Your task to perform on an android device: What is the news today? Image 0: 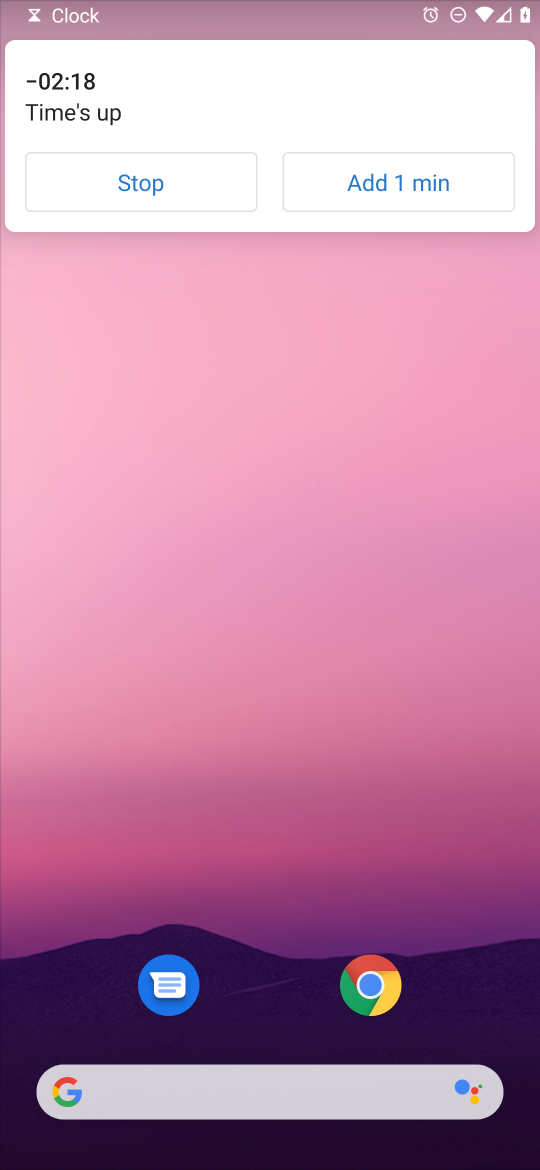
Step 0: click (134, 159)
Your task to perform on an android device: What is the news today? Image 1: 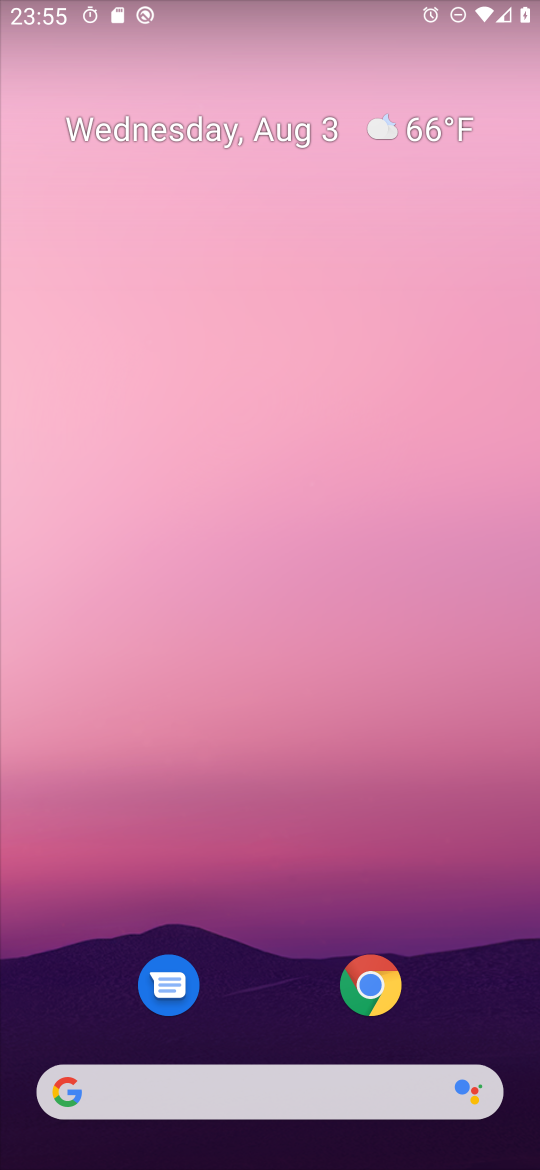
Step 1: drag from (298, 912) to (298, 266)
Your task to perform on an android device: What is the news today? Image 2: 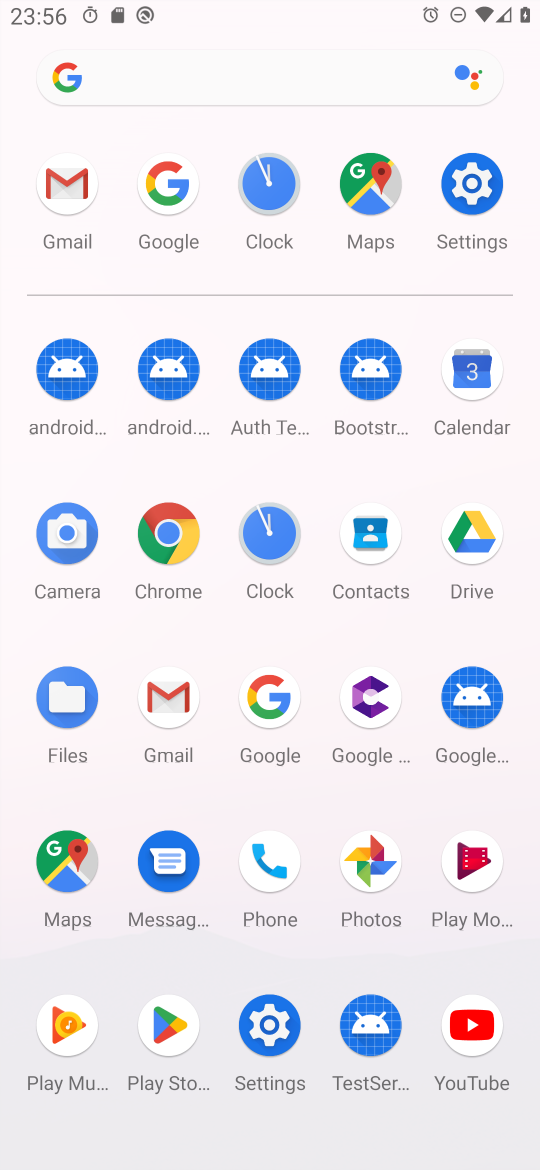
Step 2: click (157, 215)
Your task to perform on an android device: What is the news today? Image 3: 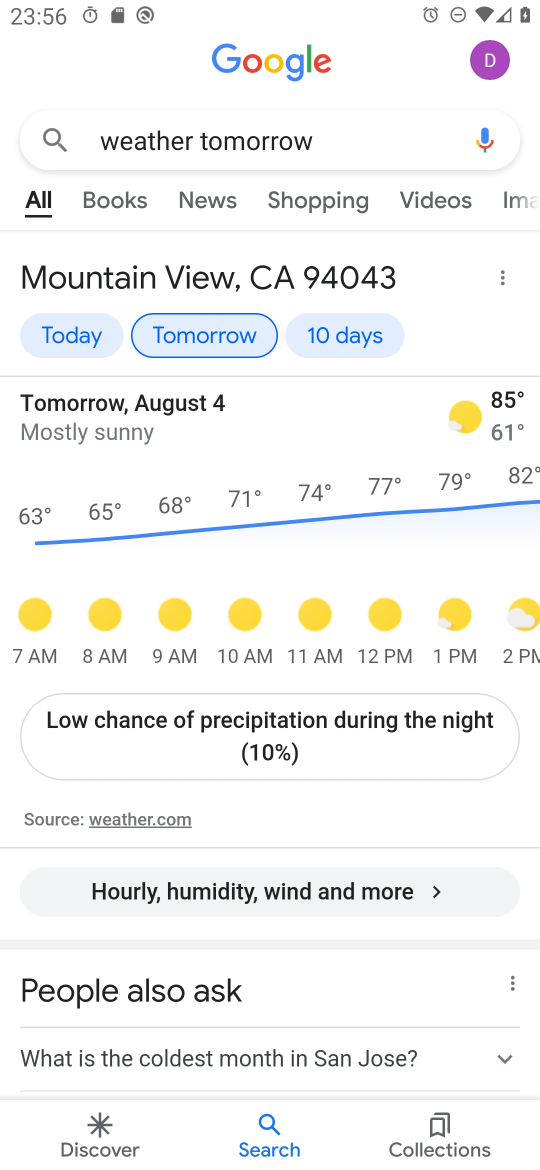
Step 3: click (346, 140)
Your task to perform on an android device: What is the news today? Image 4: 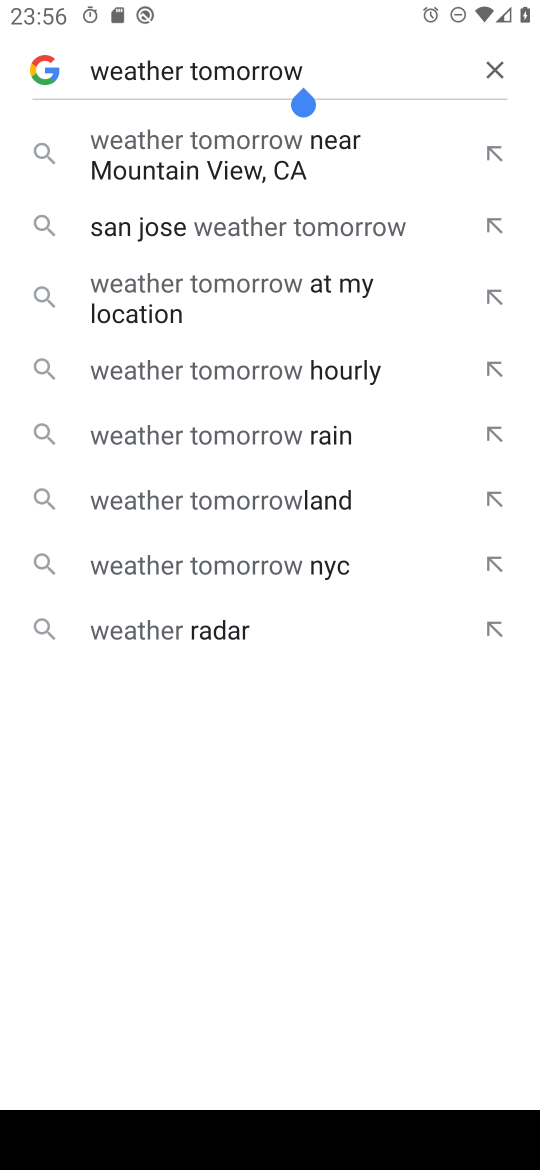
Step 4: click (485, 79)
Your task to perform on an android device: What is the news today? Image 5: 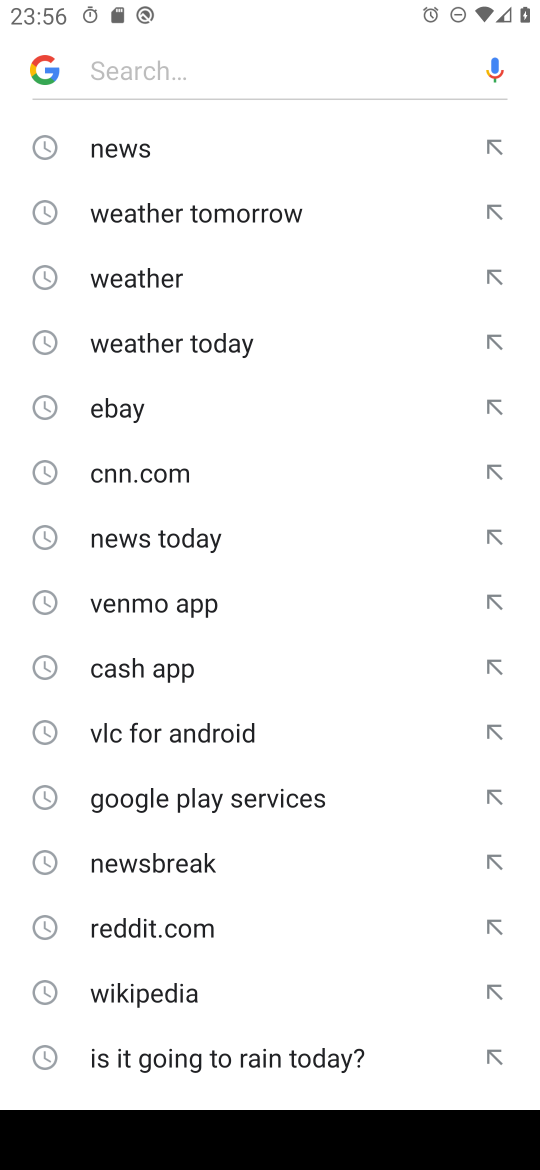
Step 5: click (114, 163)
Your task to perform on an android device: What is the news today? Image 6: 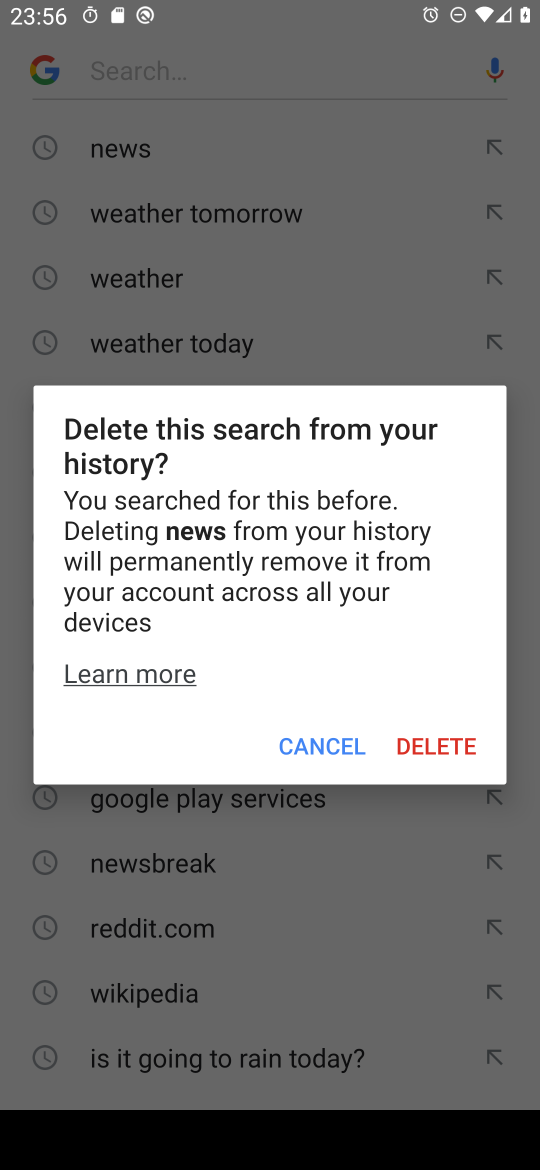
Step 6: click (343, 756)
Your task to perform on an android device: What is the news today? Image 7: 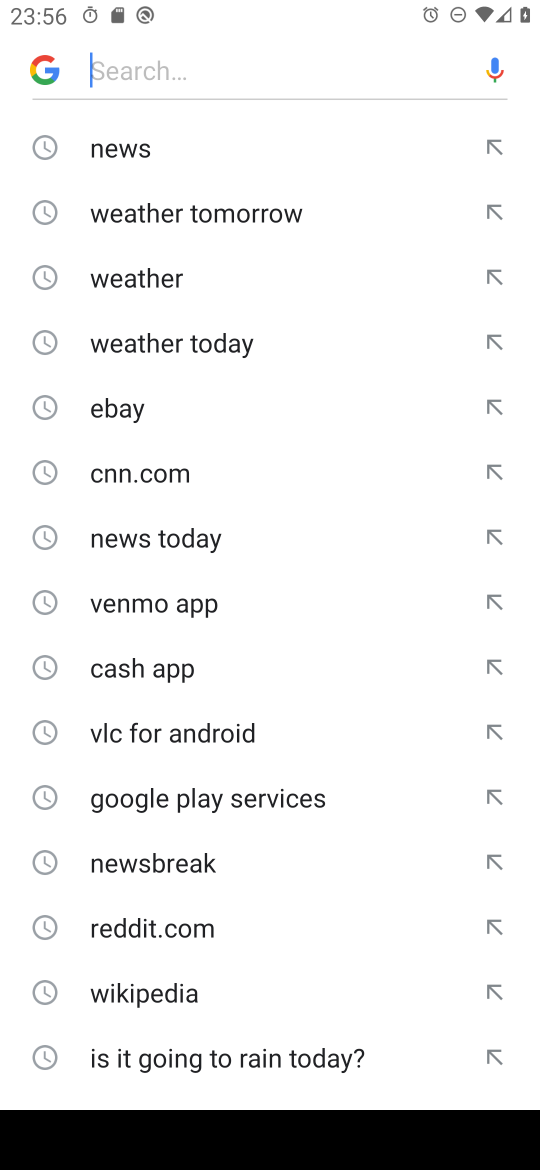
Step 7: click (141, 155)
Your task to perform on an android device: What is the news today? Image 8: 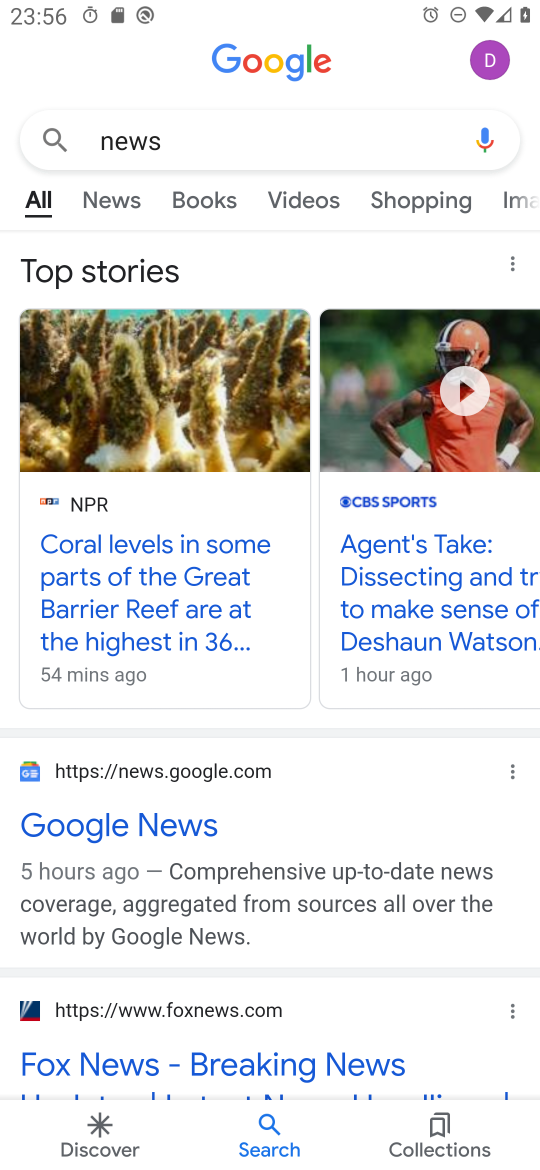
Step 8: click (115, 197)
Your task to perform on an android device: What is the news today? Image 9: 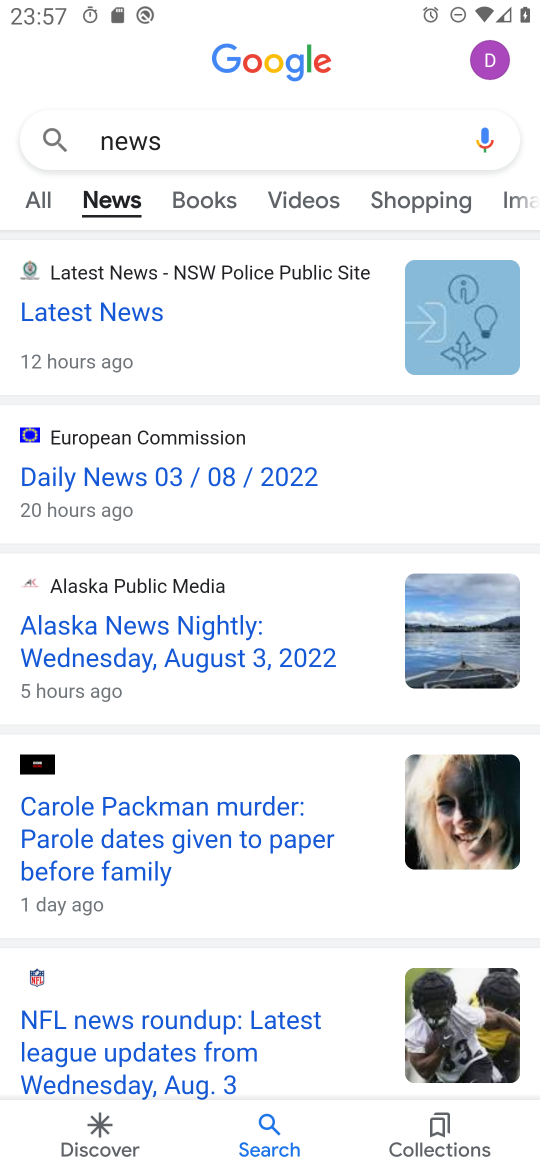
Step 9: task complete